Your task to perform on an android device: See recent photos Image 0: 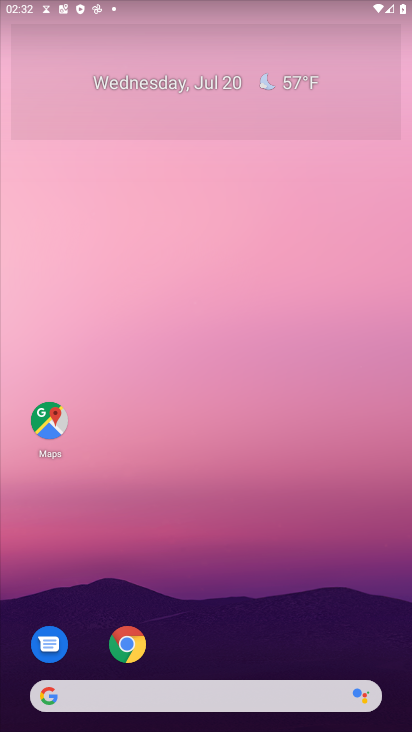
Step 0: press home button
Your task to perform on an android device: See recent photos Image 1: 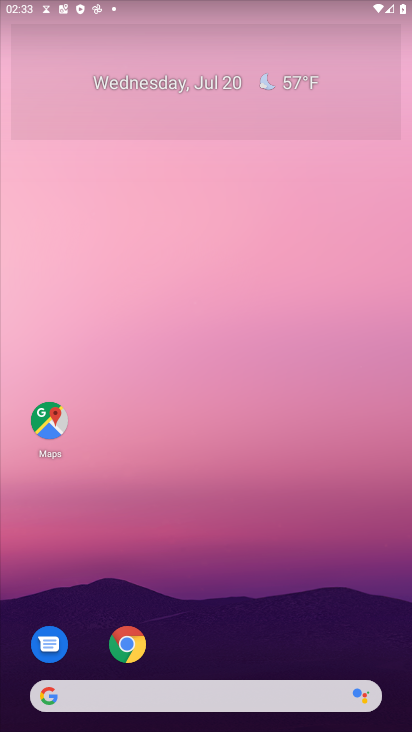
Step 1: drag from (237, 633) to (242, 44)
Your task to perform on an android device: See recent photos Image 2: 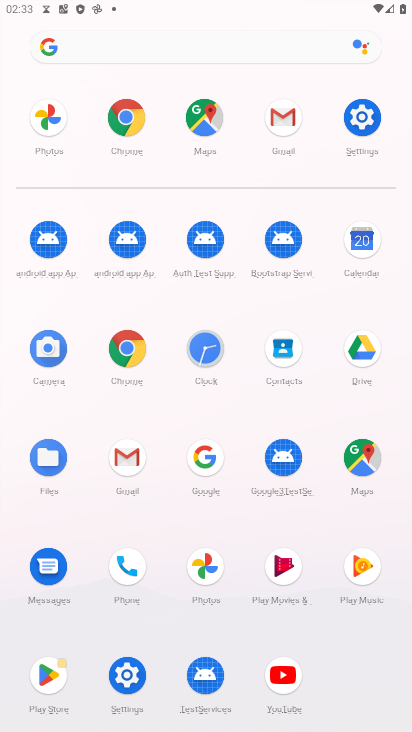
Step 2: click (207, 562)
Your task to perform on an android device: See recent photos Image 3: 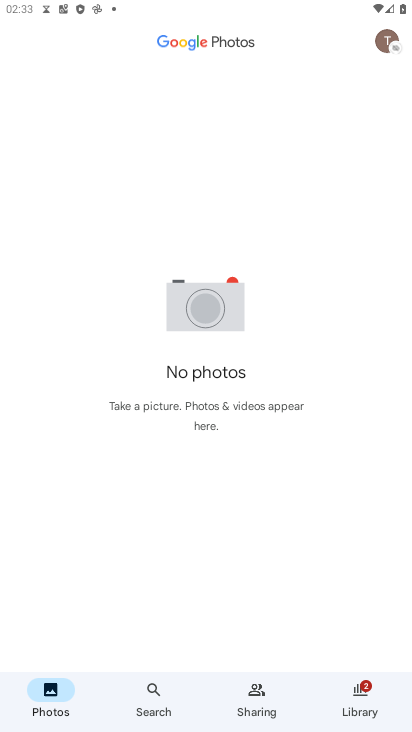
Step 3: task complete